Your task to perform on an android device: toggle show notifications on the lock screen Image 0: 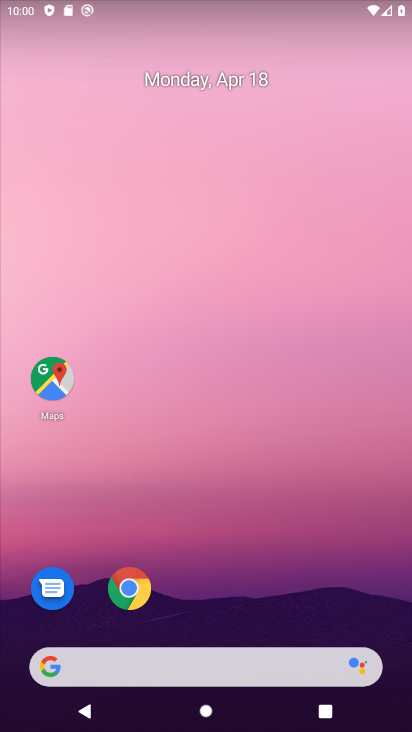
Step 0: drag from (335, 497) to (169, 40)
Your task to perform on an android device: toggle show notifications on the lock screen Image 1: 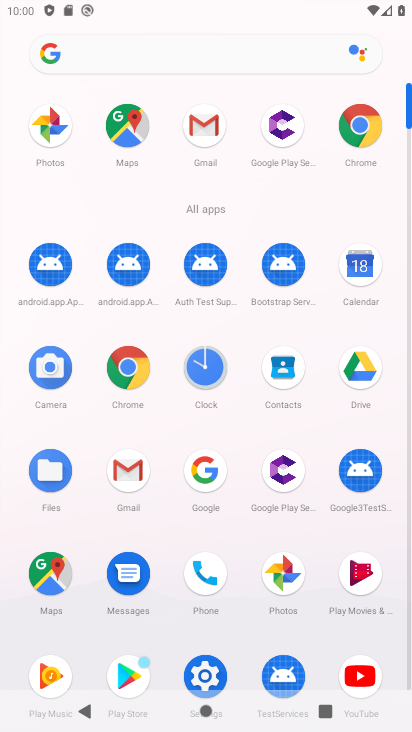
Step 1: click (205, 668)
Your task to perform on an android device: toggle show notifications on the lock screen Image 2: 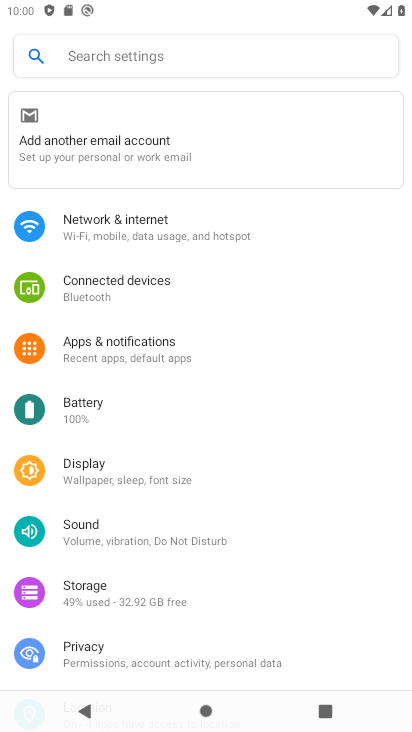
Step 2: click (147, 352)
Your task to perform on an android device: toggle show notifications on the lock screen Image 3: 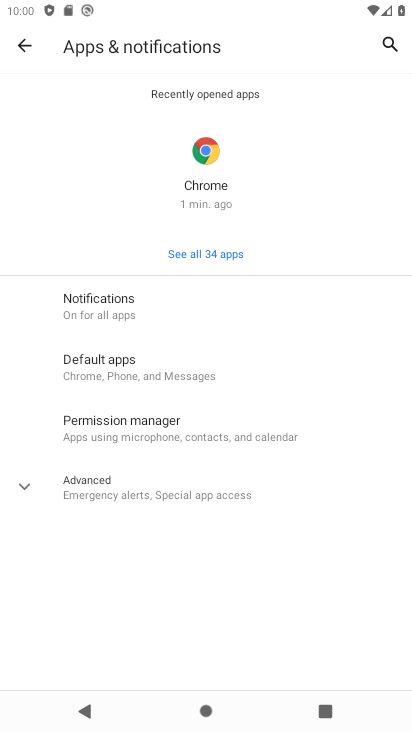
Step 3: click (151, 312)
Your task to perform on an android device: toggle show notifications on the lock screen Image 4: 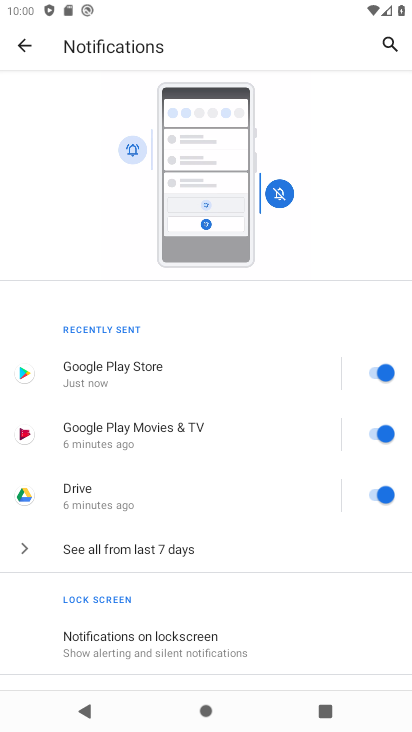
Step 4: drag from (198, 528) to (184, 169)
Your task to perform on an android device: toggle show notifications on the lock screen Image 5: 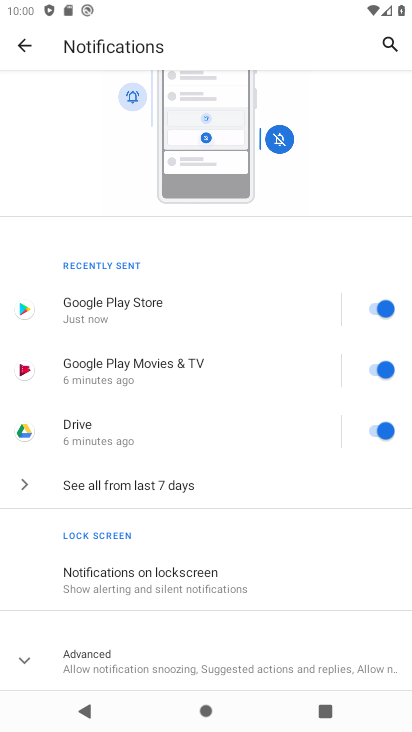
Step 5: click (170, 574)
Your task to perform on an android device: toggle show notifications on the lock screen Image 6: 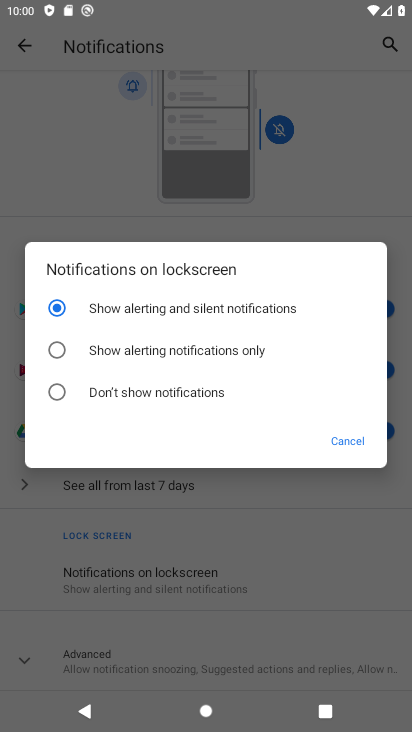
Step 6: click (100, 349)
Your task to perform on an android device: toggle show notifications on the lock screen Image 7: 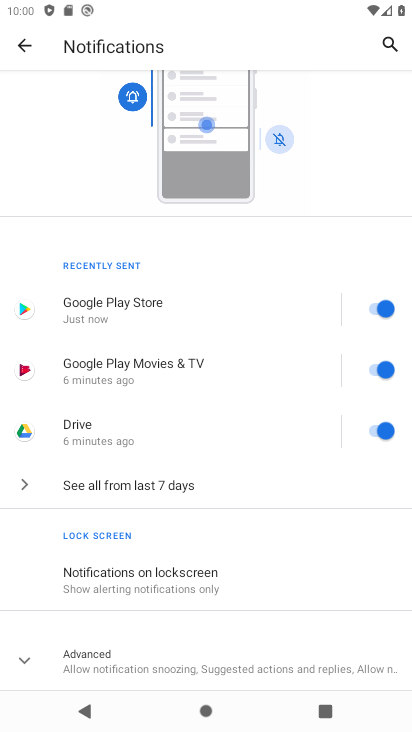
Step 7: task complete